Your task to perform on an android device: snooze an email in the gmail app Image 0: 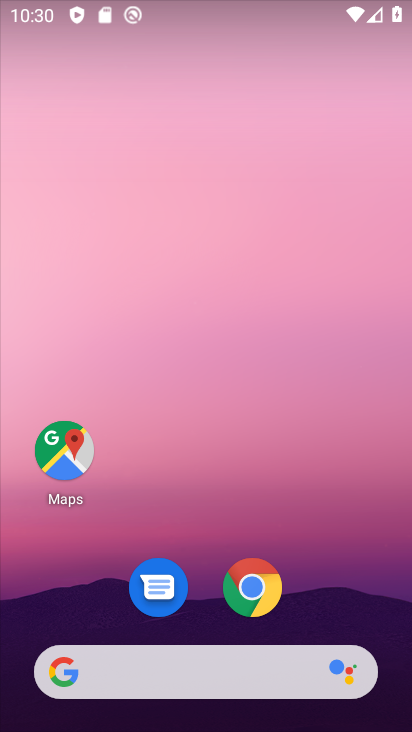
Step 0: drag from (185, 626) to (103, 29)
Your task to perform on an android device: snooze an email in the gmail app Image 1: 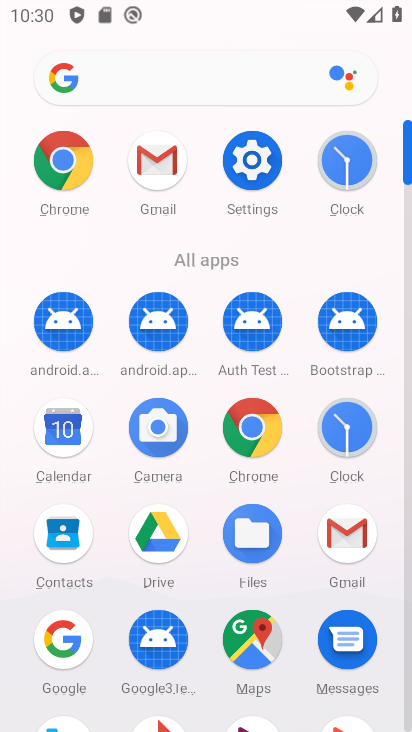
Step 1: click (364, 543)
Your task to perform on an android device: snooze an email in the gmail app Image 2: 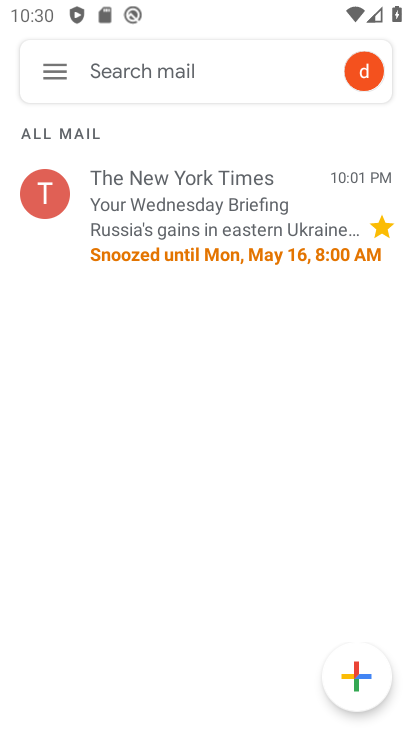
Step 2: click (150, 211)
Your task to perform on an android device: snooze an email in the gmail app Image 3: 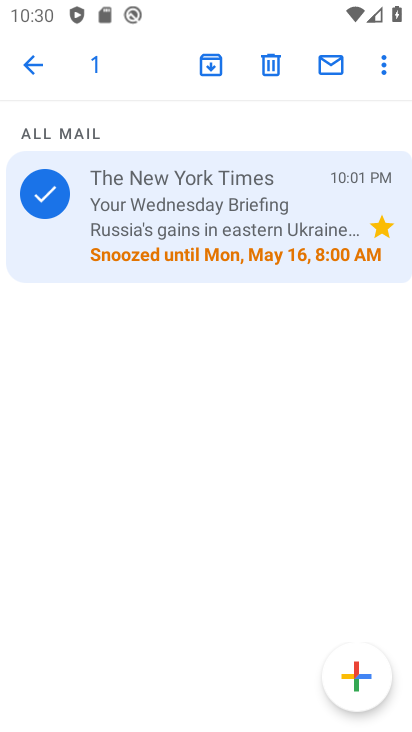
Step 3: click (394, 68)
Your task to perform on an android device: snooze an email in the gmail app Image 4: 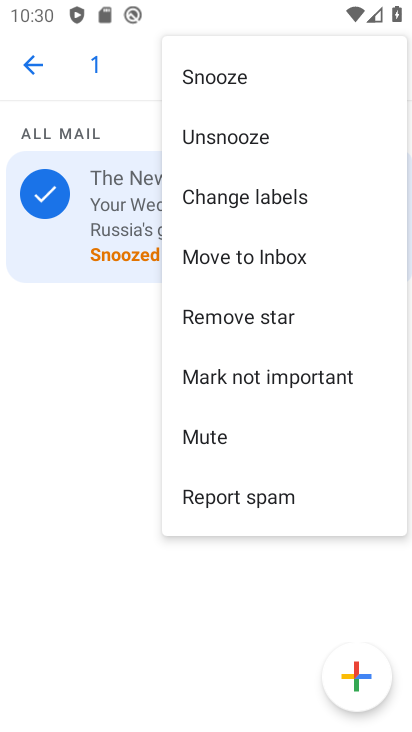
Step 4: click (235, 71)
Your task to perform on an android device: snooze an email in the gmail app Image 5: 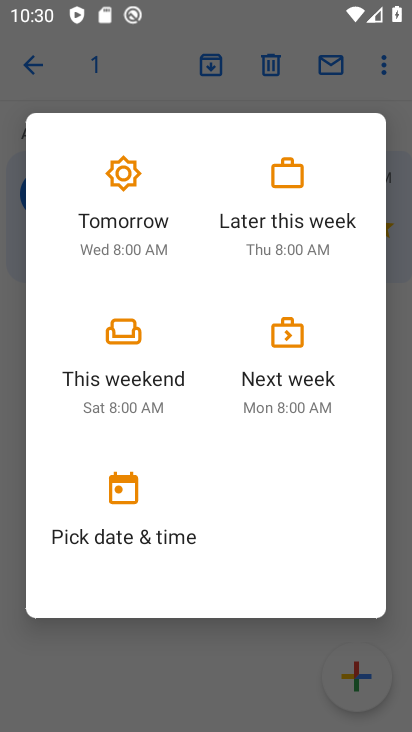
Step 5: click (115, 201)
Your task to perform on an android device: snooze an email in the gmail app Image 6: 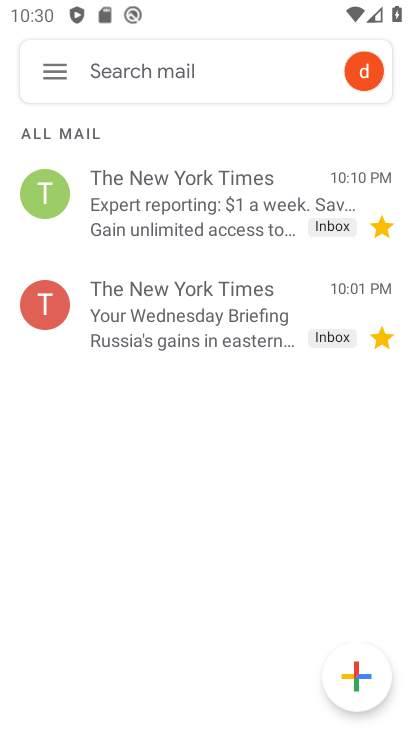
Step 6: task complete